Your task to perform on an android device: find which apps use the phone's location Image 0: 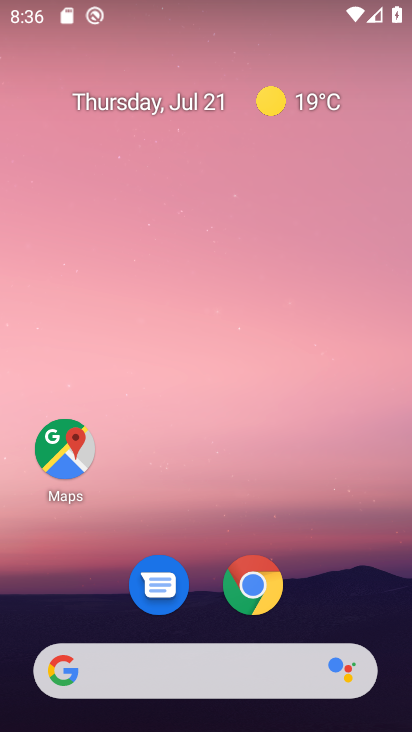
Step 0: drag from (331, 592) to (313, 66)
Your task to perform on an android device: find which apps use the phone's location Image 1: 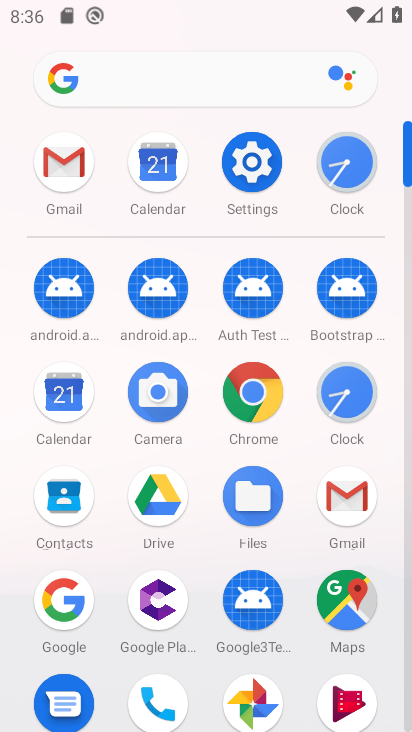
Step 1: click (259, 164)
Your task to perform on an android device: find which apps use the phone's location Image 2: 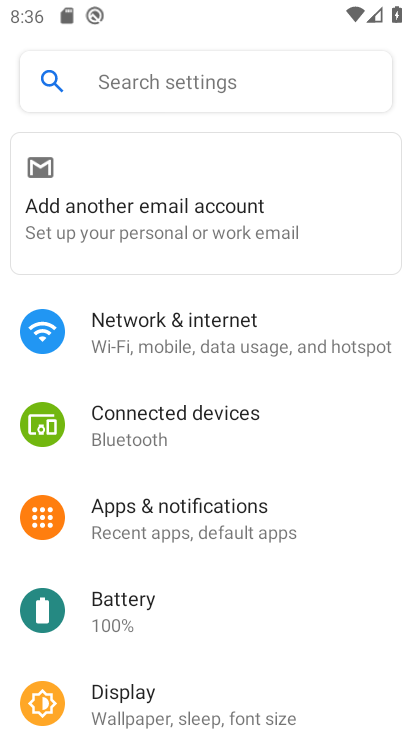
Step 2: drag from (209, 585) to (247, 149)
Your task to perform on an android device: find which apps use the phone's location Image 3: 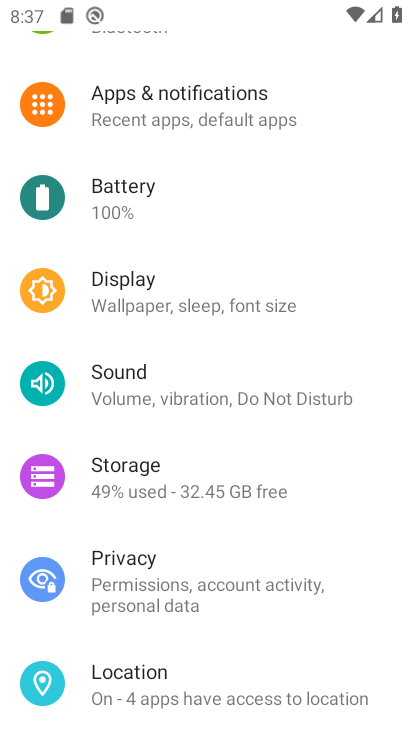
Step 3: click (200, 688)
Your task to perform on an android device: find which apps use the phone's location Image 4: 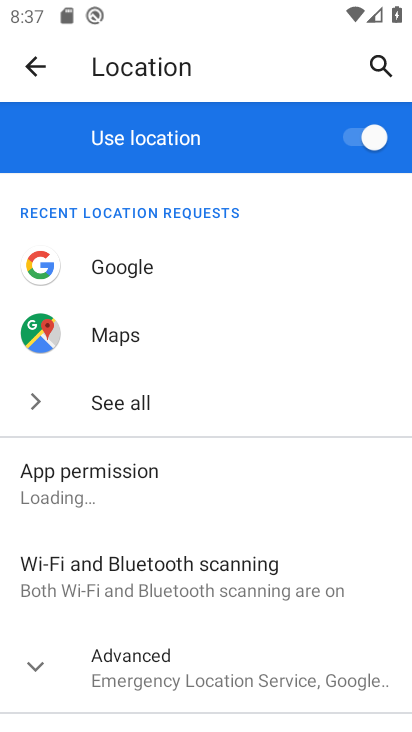
Step 4: drag from (252, 484) to (279, 206)
Your task to perform on an android device: find which apps use the phone's location Image 5: 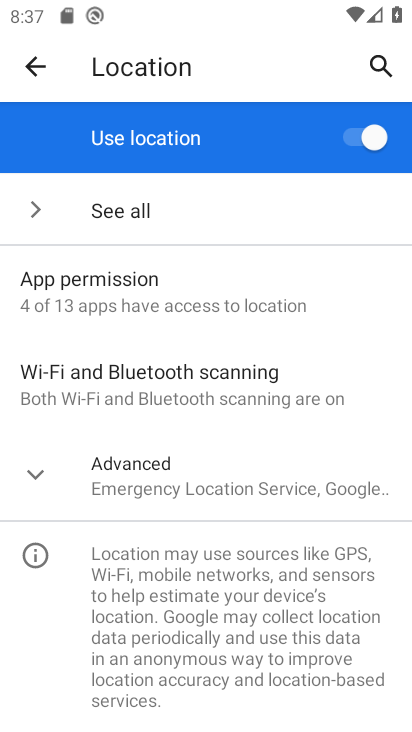
Step 5: drag from (182, 317) to (217, 538)
Your task to perform on an android device: find which apps use the phone's location Image 6: 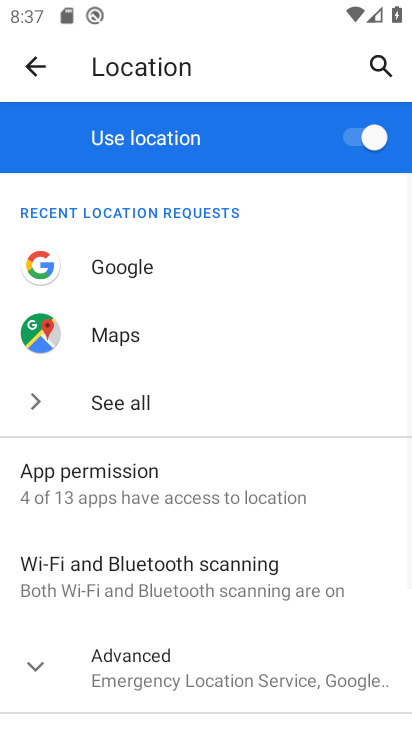
Step 6: click (202, 469)
Your task to perform on an android device: find which apps use the phone's location Image 7: 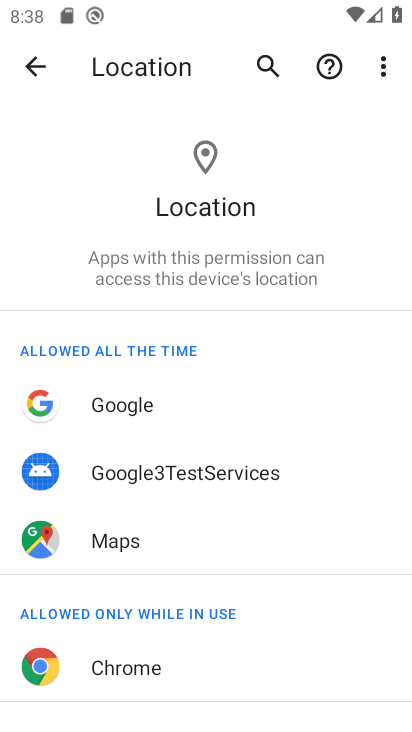
Step 7: task complete